Your task to perform on an android device: Open Reddit.com Image 0: 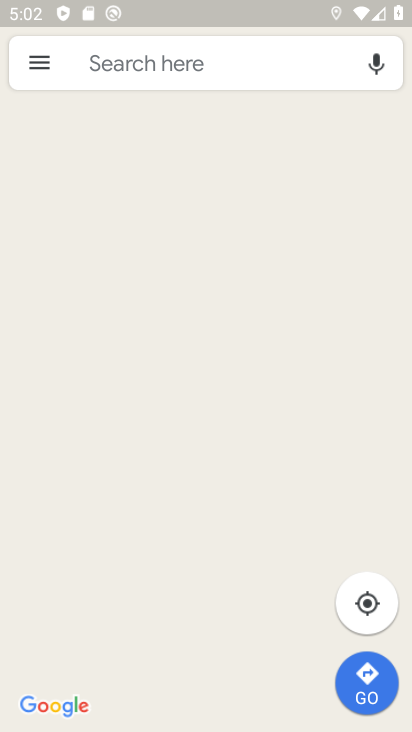
Step 0: press home button
Your task to perform on an android device: Open Reddit.com Image 1: 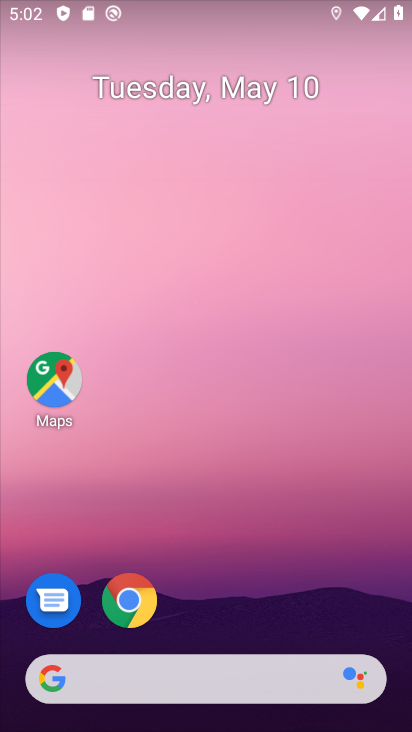
Step 1: click (223, 678)
Your task to perform on an android device: Open Reddit.com Image 2: 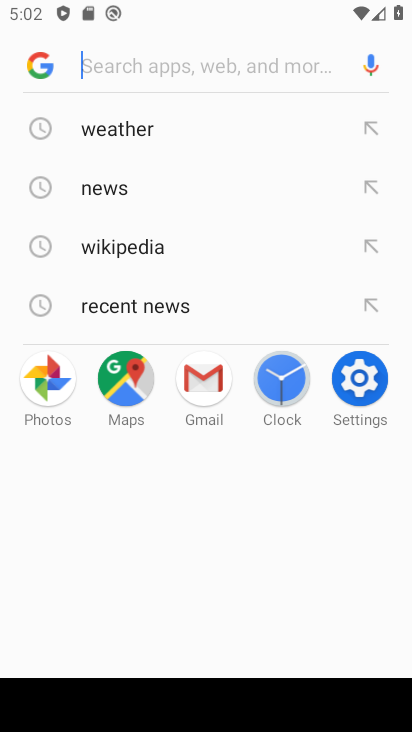
Step 2: type "Reddit.com"
Your task to perform on an android device: Open Reddit.com Image 3: 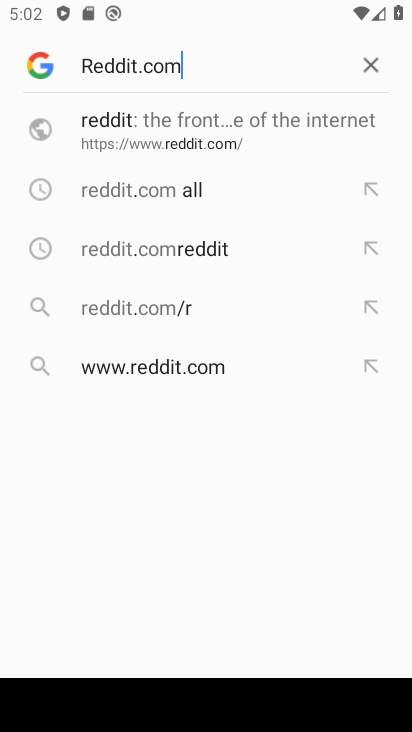
Step 3: click (217, 149)
Your task to perform on an android device: Open Reddit.com Image 4: 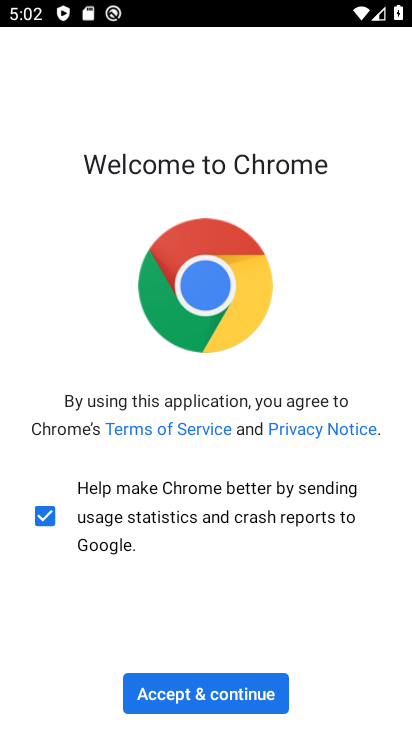
Step 4: click (242, 714)
Your task to perform on an android device: Open Reddit.com Image 5: 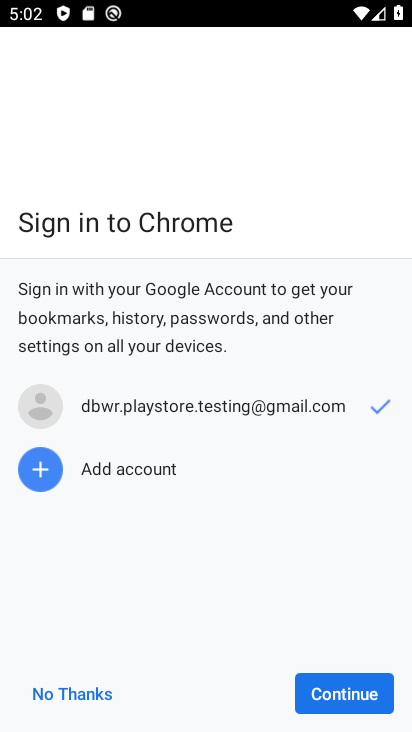
Step 5: click (325, 690)
Your task to perform on an android device: Open Reddit.com Image 6: 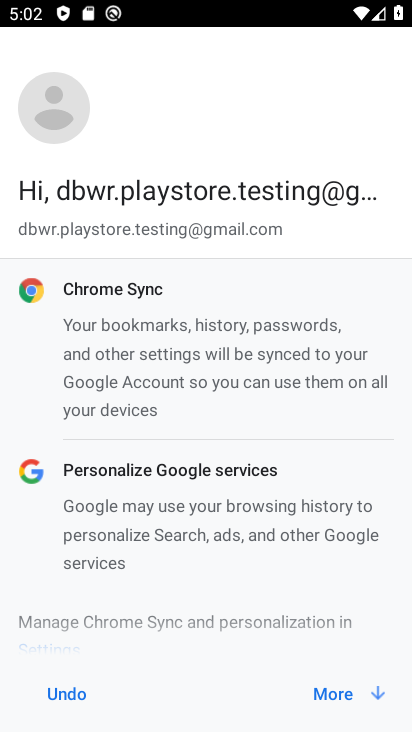
Step 6: click (339, 706)
Your task to perform on an android device: Open Reddit.com Image 7: 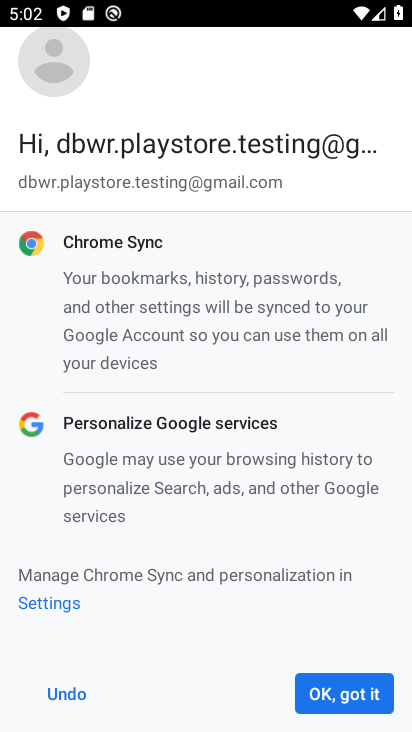
Step 7: click (337, 704)
Your task to perform on an android device: Open Reddit.com Image 8: 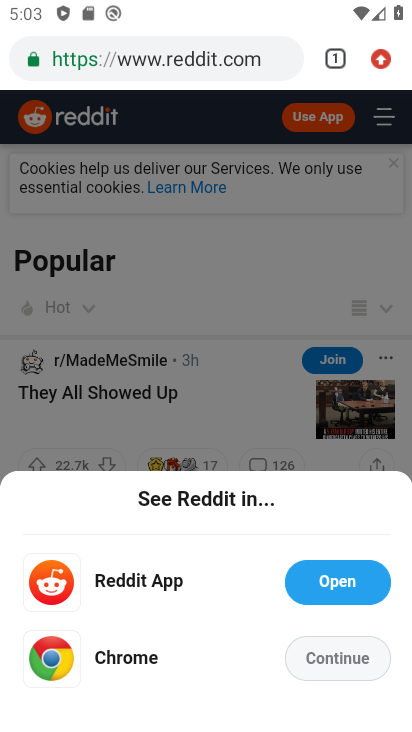
Step 8: click (342, 660)
Your task to perform on an android device: Open Reddit.com Image 9: 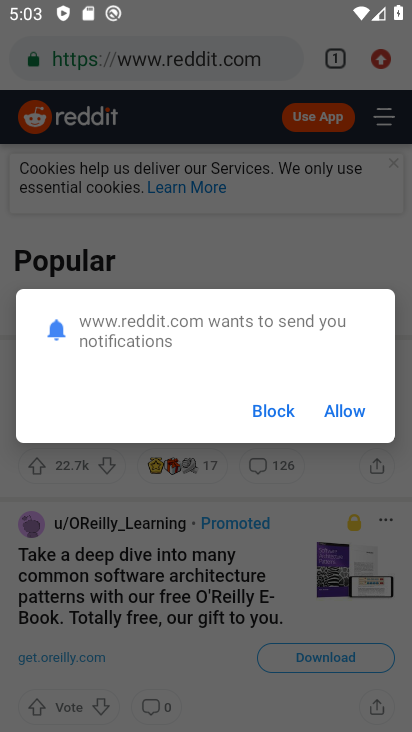
Step 9: click (358, 420)
Your task to perform on an android device: Open Reddit.com Image 10: 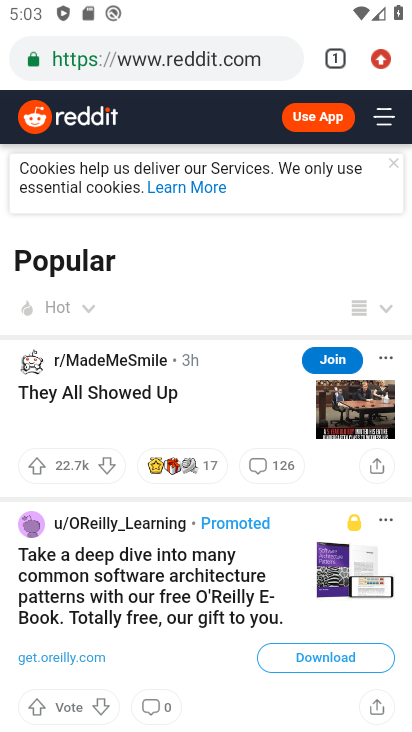
Step 10: task complete